Your task to perform on an android device: open the mobile data screen to see how much data has been used Image 0: 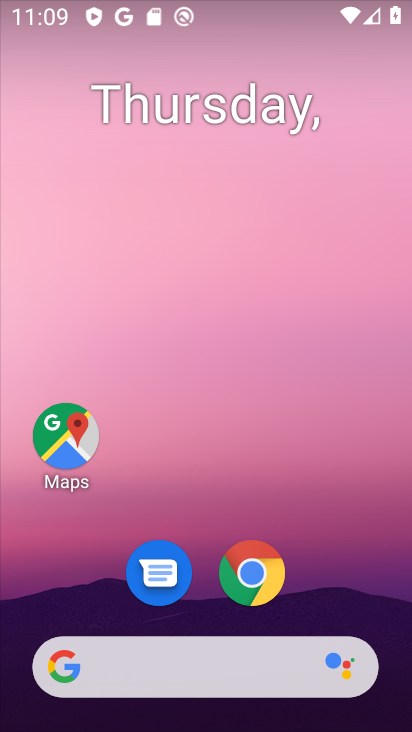
Step 0: press home button
Your task to perform on an android device: open the mobile data screen to see how much data has been used Image 1: 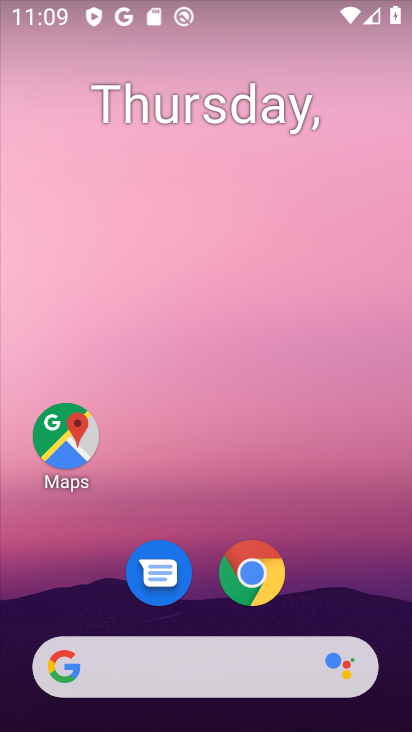
Step 1: drag from (199, 634) to (222, 237)
Your task to perform on an android device: open the mobile data screen to see how much data has been used Image 2: 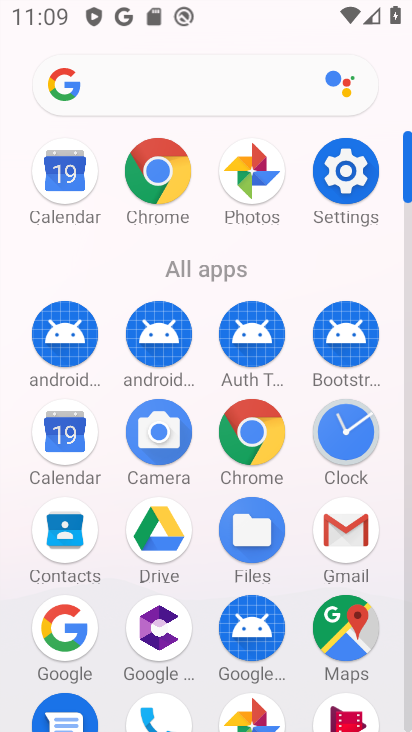
Step 2: click (335, 170)
Your task to perform on an android device: open the mobile data screen to see how much data has been used Image 3: 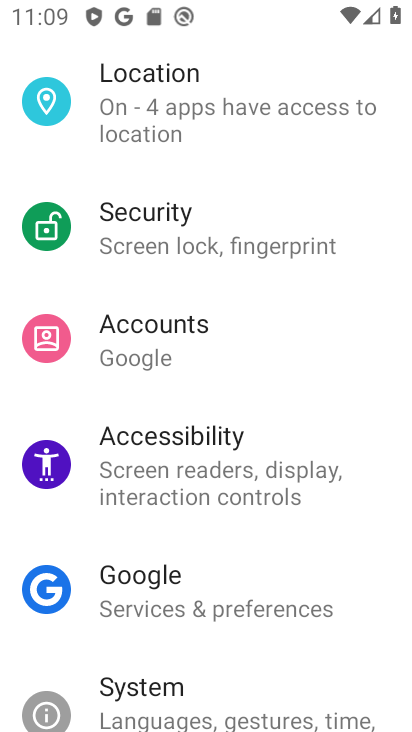
Step 3: drag from (154, 111) to (178, 545)
Your task to perform on an android device: open the mobile data screen to see how much data has been used Image 4: 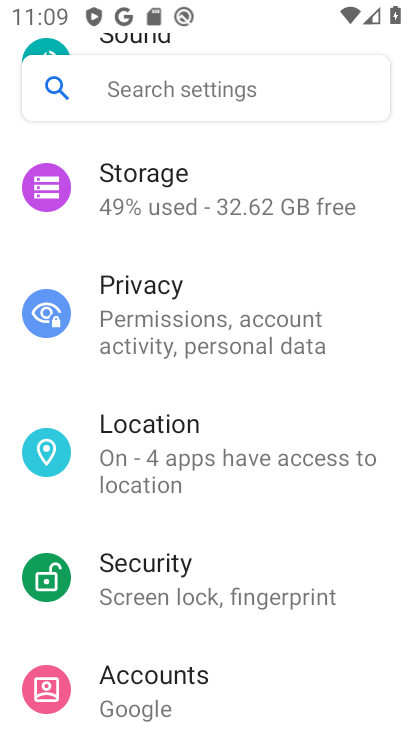
Step 4: drag from (243, 165) to (270, 605)
Your task to perform on an android device: open the mobile data screen to see how much data has been used Image 5: 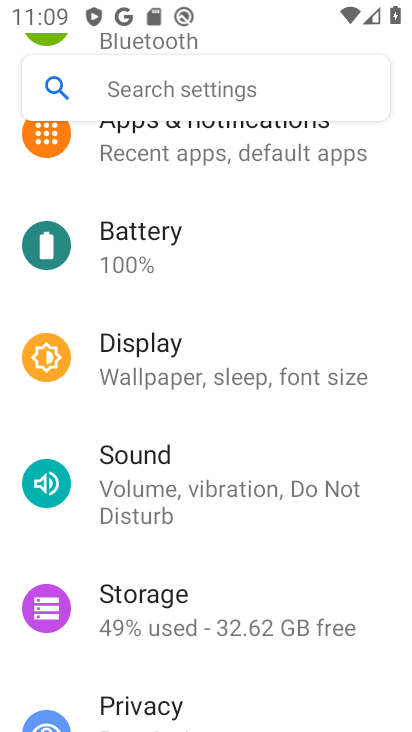
Step 5: drag from (258, 181) to (268, 652)
Your task to perform on an android device: open the mobile data screen to see how much data has been used Image 6: 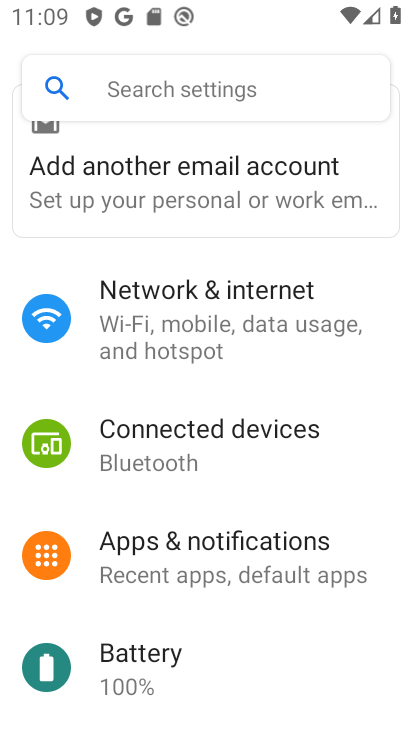
Step 6: click (235, 309)
Your task to perform on an android device: open the mobile data screen to see how much data has been used Image 7: 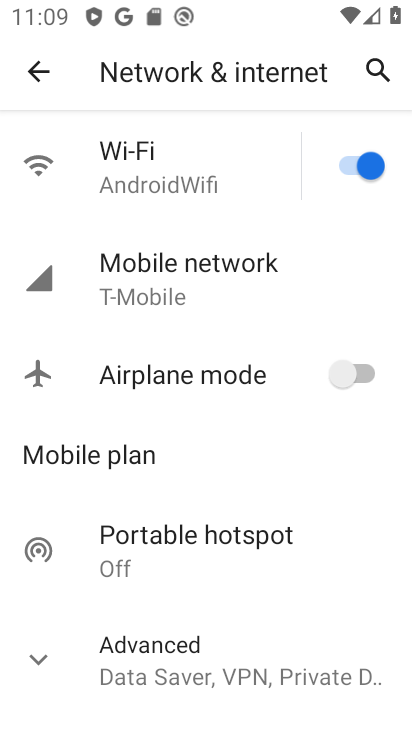
Step 7: click (169, 277)
Your task to perform on an android device: open the mobile data screen to see how much data has been used Image 8: 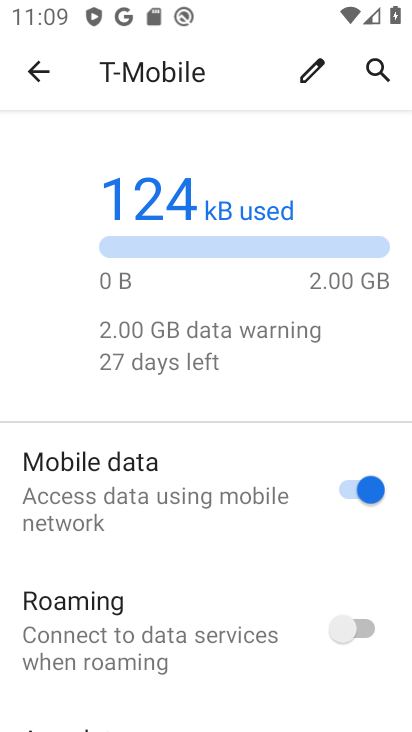
Step 8: task complete